Your task to perform on an android device: Open sound settings Image 0: 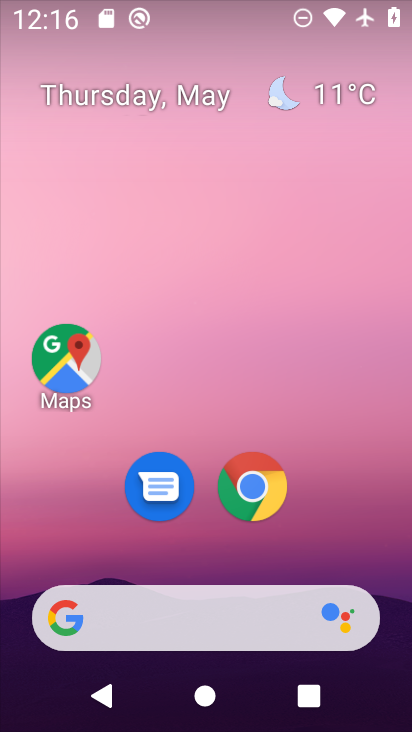
Step 0: drag from (344, 509) to (138, 2)
Your task to perform on an android device: Open sound settings Image 1: 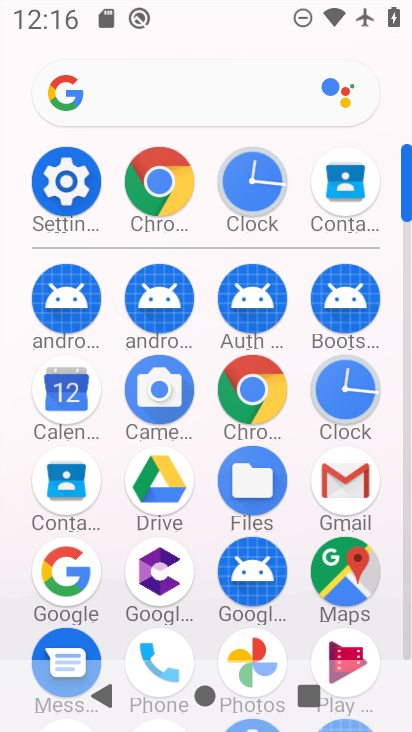
Step 1: click (64, 170)
Your task to perform on an android device: Open sound settings Image 2: 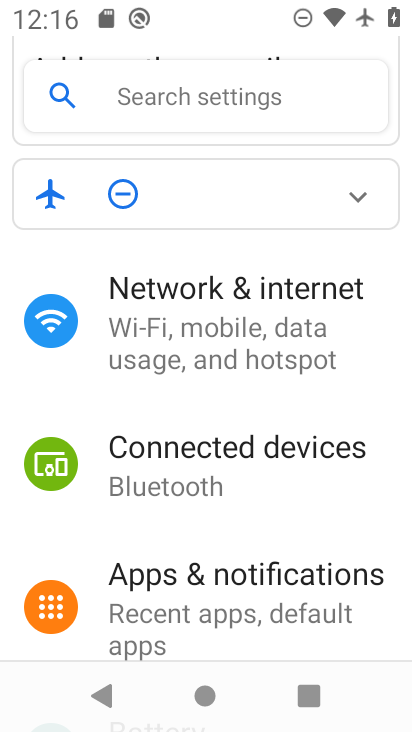
Step 2: drag from (316, 510) to (350, 225)
Your task to perform on an android device: Open sound settings Image 3: 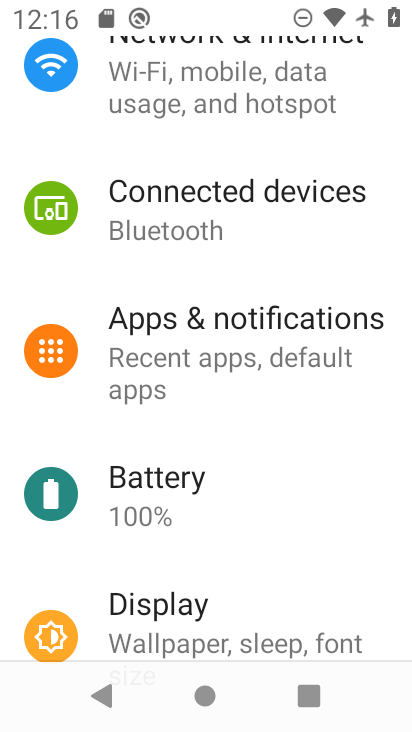
Step 3: drag from (325, 522) to (344, 218)
Your task to perform on an android device: Open sound settings Image 4: 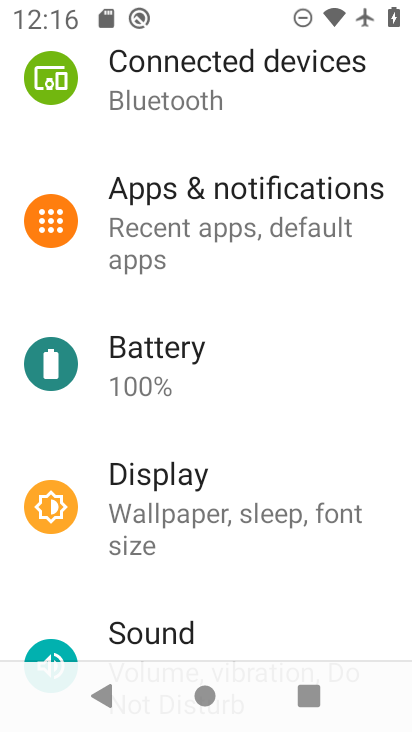
Step 4: drag from (320, 567) to (323, 238)
Your task to perform on an android device: Open sound settings Image 5: 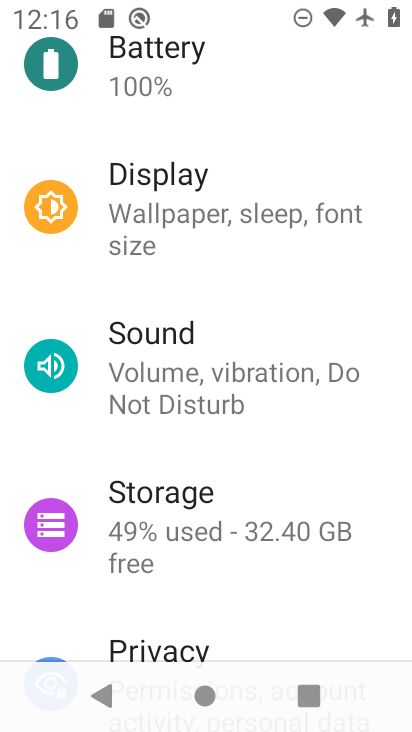
Step 5: click (218, 384)
Your task to perform on an android device: Open sound settings Image 6: 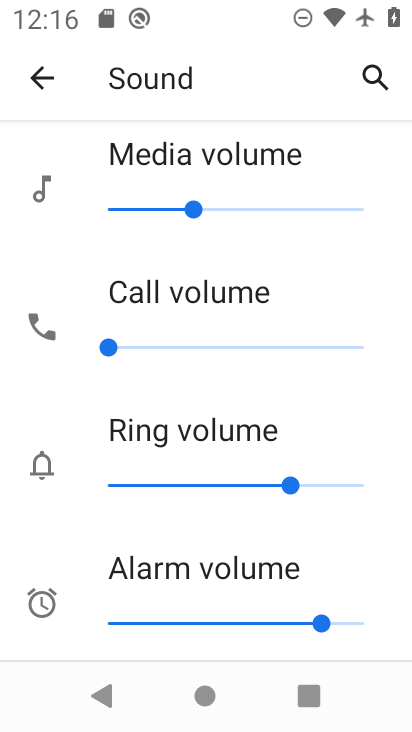
Step 6: drag from (195, 535) to (237, 218)
Your task to perform on an android device: Open sound settings Image 7: 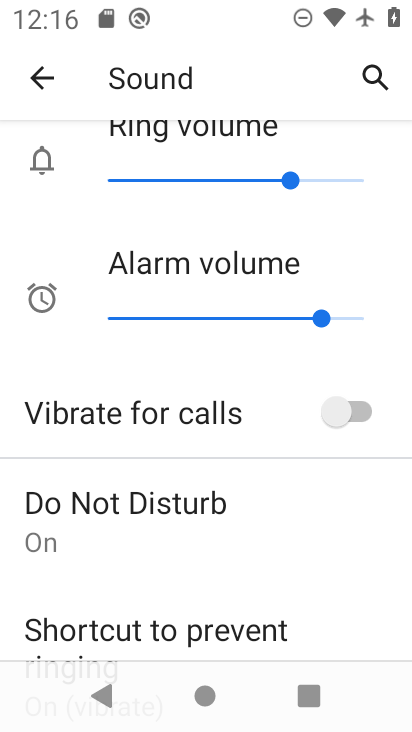
Step 7: drag from (196, 581) to (185, 172)
Your task to perform on an android device: Open sound settings Image 8: 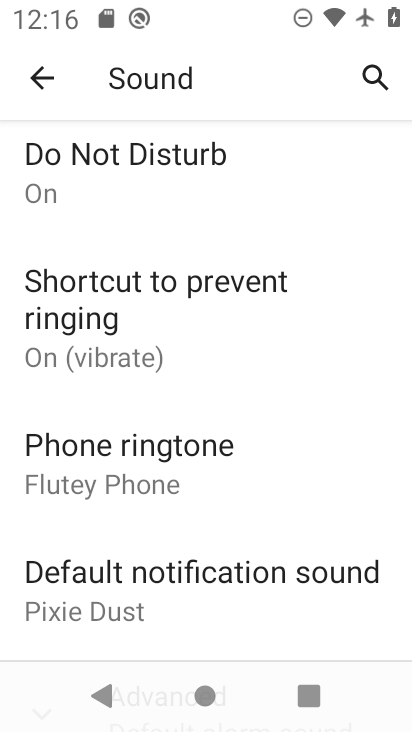
Step 8: drag from (205, 583) to (260, 172)
Your task to perform on an android device: Open sound settings Image 9: 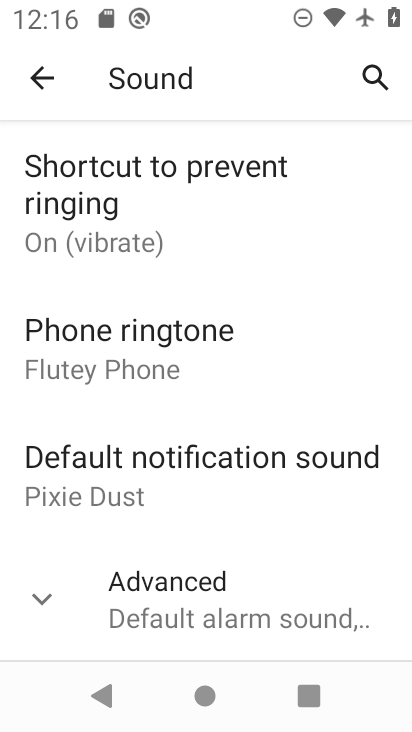
Step 9: click (50, 602)
Your task to perform on an android device: Open sound settings Image 10: 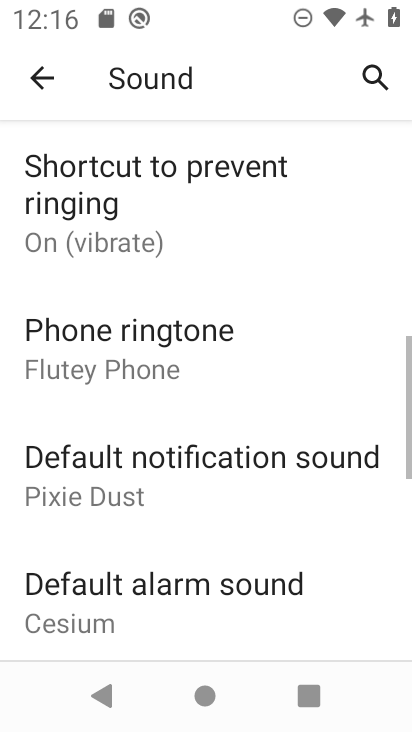
Step 10: task complete